Your task to perform on an android device: turn on bluetooth scan Image 0: 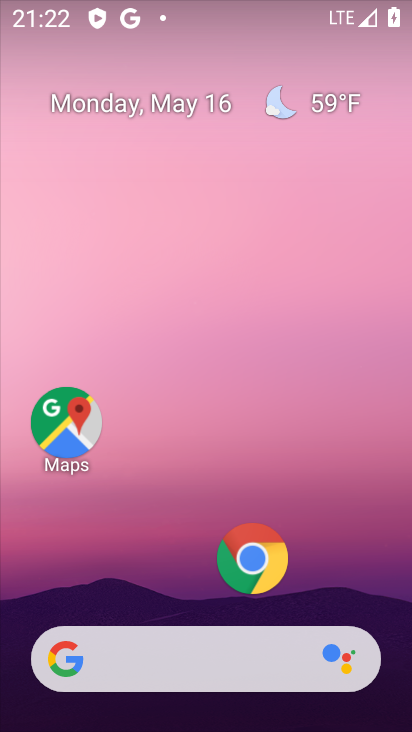
Step 0: drag from (110, 538) to (262, 65)
Your task to perform on an android device: turn on bluetooth scan Image 1: 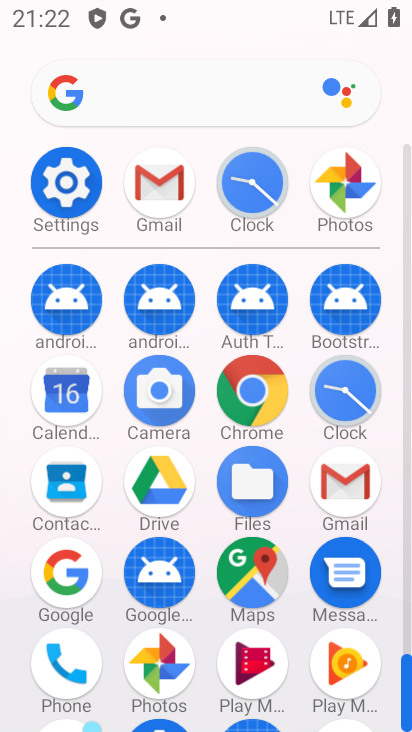
Step 1: click (67, 172)
Your task to perform on an android device: turn on bluetooth scan Image 2: 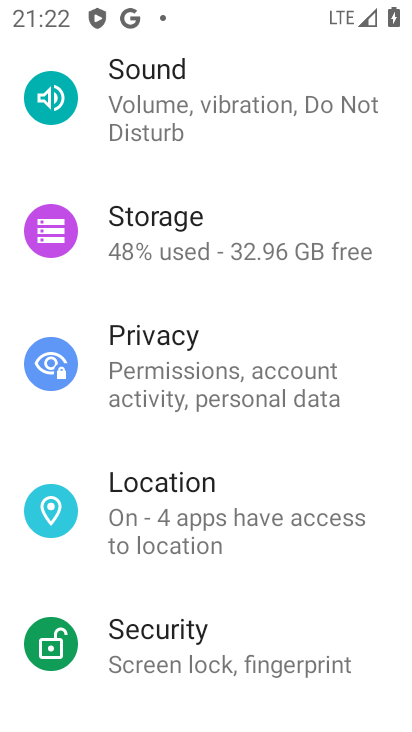
Step 2: drag from (220, 171) to (230, 605)
Your task to perform on an android device: turn on bluetooth scan Image 3: 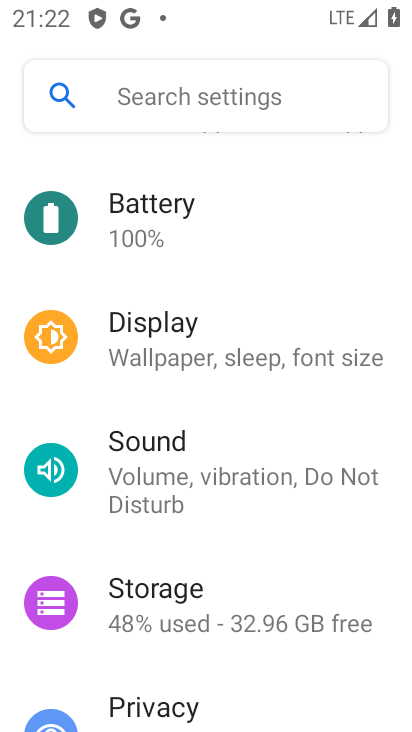
Step 3: drag from (207, 260) to (192, 688)
Your task to perform on an android device: turn on bluetooth scan Image 4: 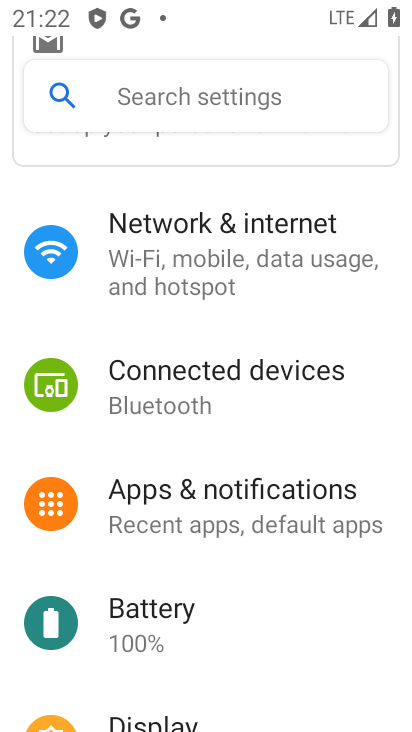
Step 4: click (142, 389)
Your task to perform on an android device: turn on bluetooth scan Image 5: 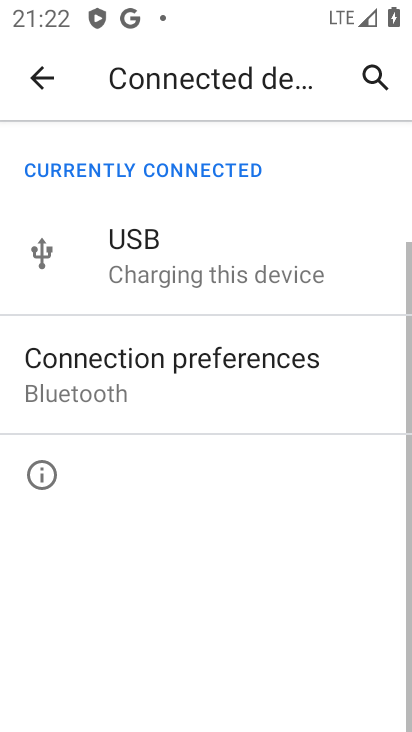
Step 5: click (128, 369)
Your task to perform on an android device: turn on bluetooth scan Image 6: 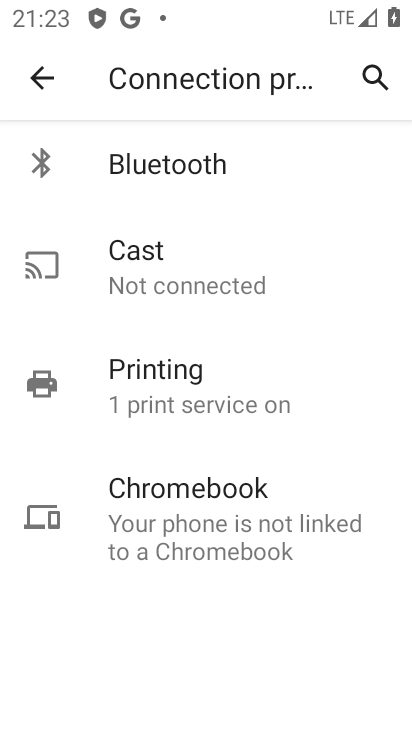
Step 6: click (192, 171)
Your task to perform on an android device: turn on bluetooth scan Image 7: 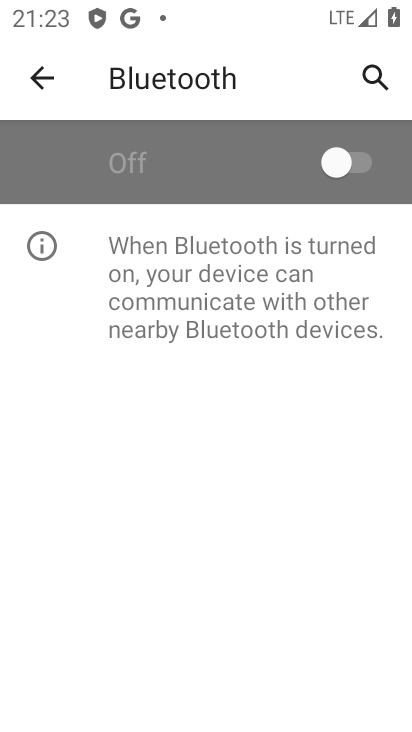
Step 7: click (347, 168)
Your task to perform on an android device: turn on bluetooth scan Image 8: 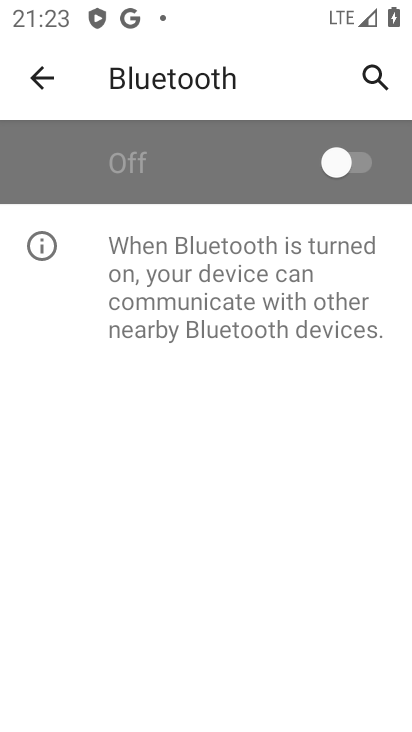
Step 8: task complete